Your task to perform on an android device: Open Youtube and go to "Your channel" Image 0: 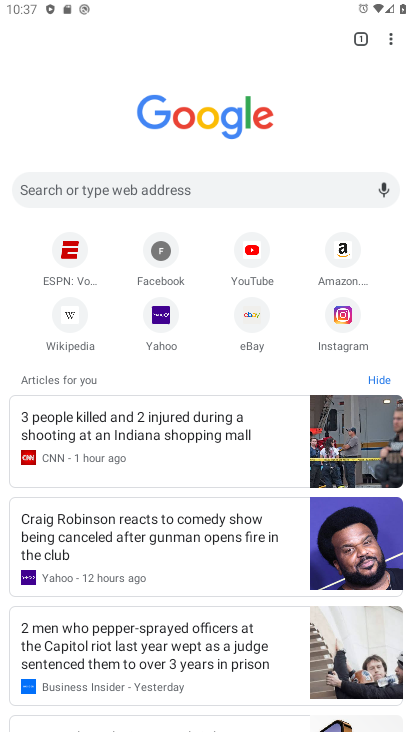
Step 0: press home button
Your task to perform on an android device: Open Youtube and go to "Your channel" Image 1: 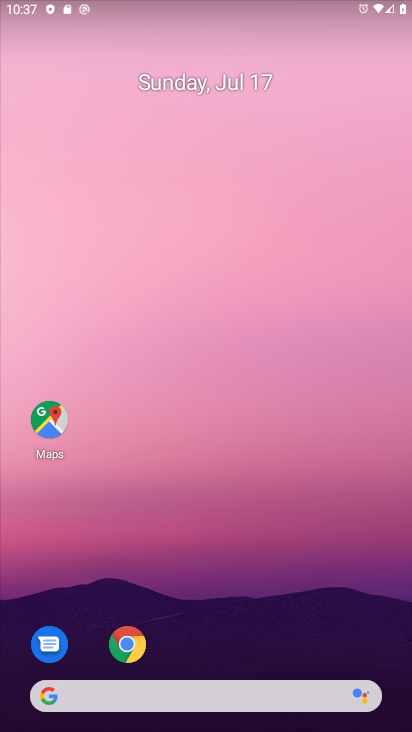
Step 1: drag from (317, 537) to (345, 4)
Your task to perform on an android device: Open Youtube and go to "Your channel" Image 2: 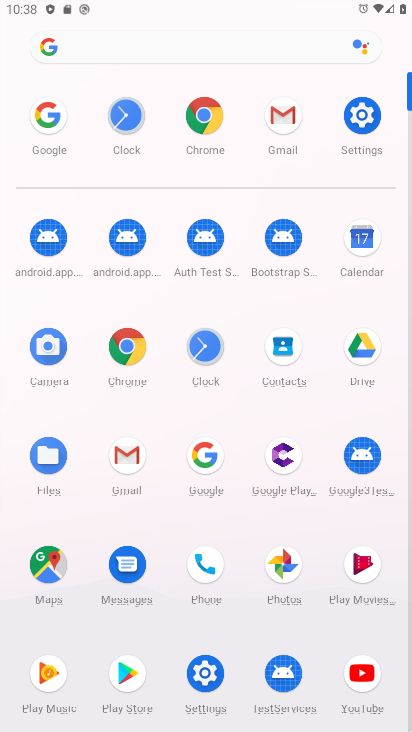
Step 2: click (364, 691)
Your task to perform on an android device: Open Youtube and go to "Your channel" Image 3: 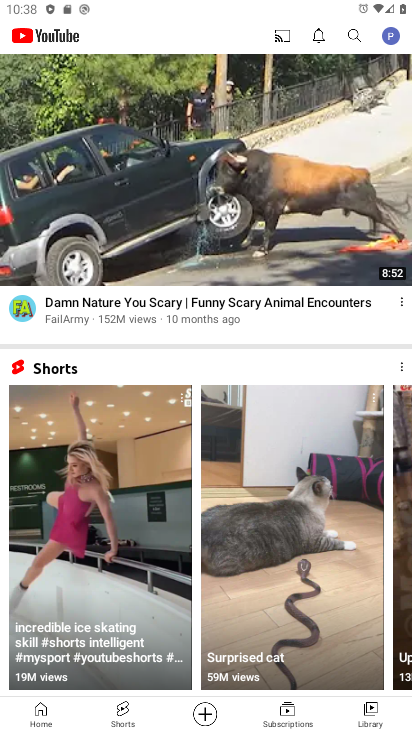
Step 3: drag from (246, 570) to (282, 705)
Your task to perform on an android device: Open Youtube and go to "Your channel" Image 4: 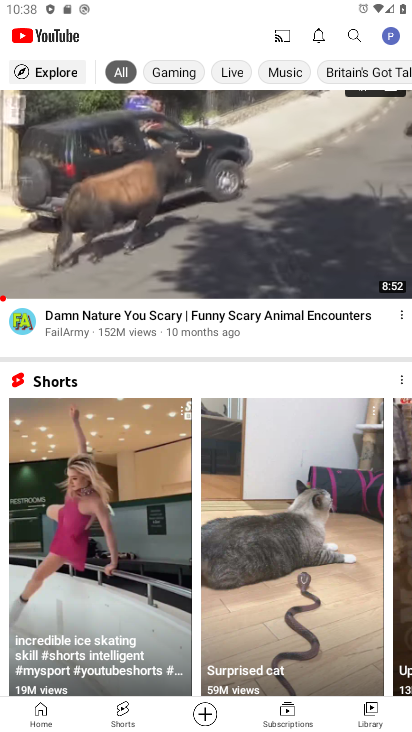
Step 4: click (391, 36)
Your task to perform on an android device: Open Youtube and go to "Your channel" Image 5: 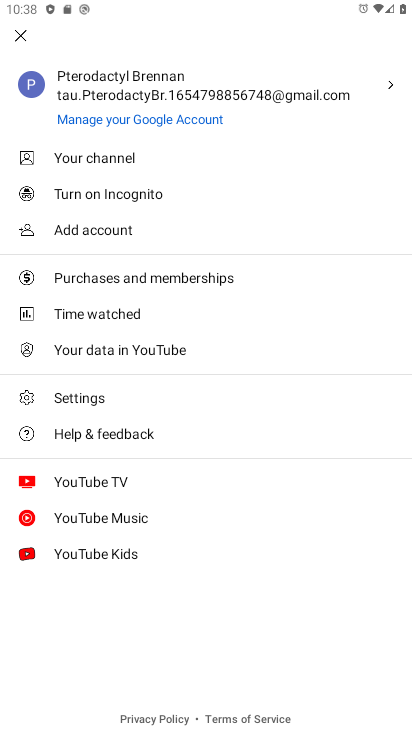
Step 5: click (73, 161)
Your task to perform on an android device: Open Youtube and go to "Your channel" Image 6: 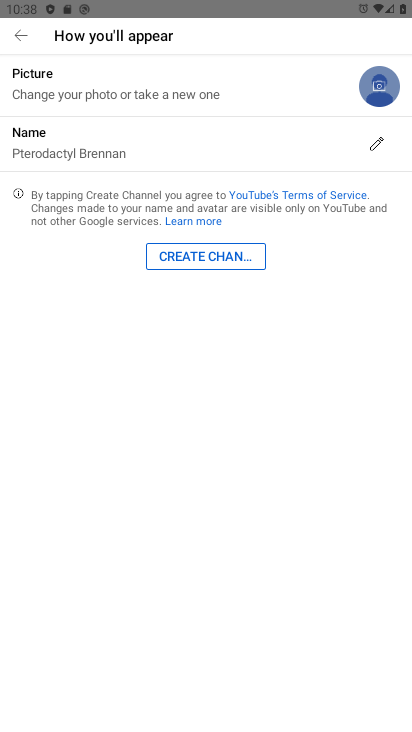
Step 6: task complete